Your task to perform on an android device: check storage Image 0: 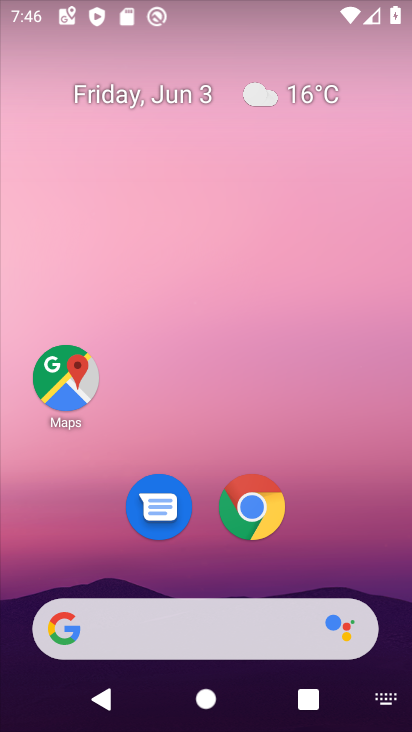
Step 0: drag from (338, 564) to (200, 40)
Your task to perform on an android device: check storage Image 1: 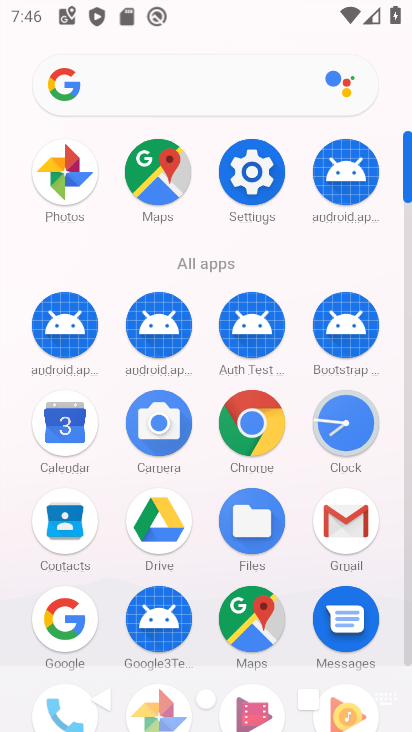
Step 1: click (257, 188)
Your task to perform on an android device: check storage Image 2: 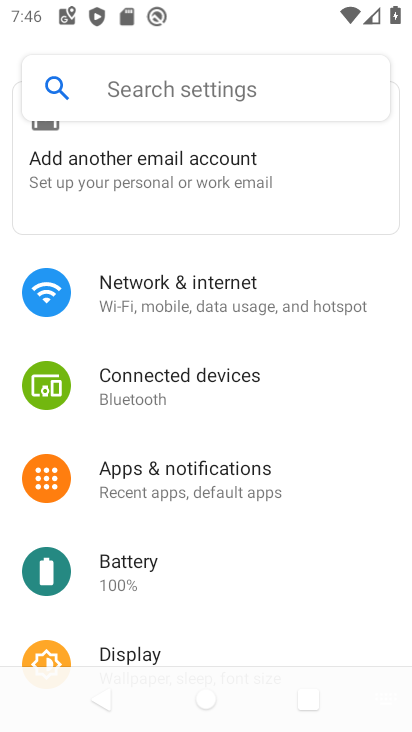
Step 2: drag from (242, 579) to (262, 135)
Your task to perform on an android device: check storage Image 3: 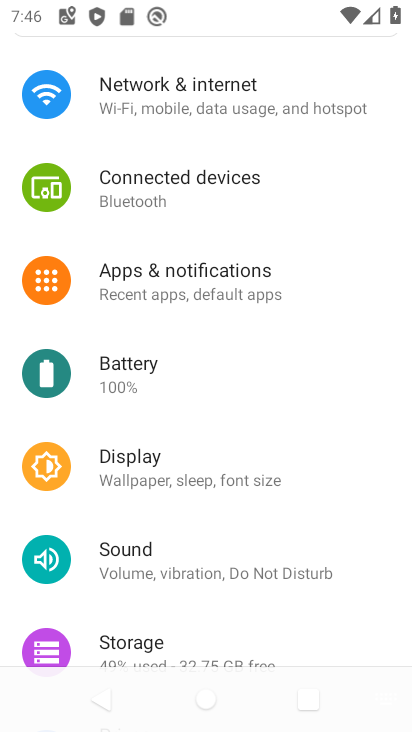
Step 3: drag from (207, 508) to (232, 211)
Your task to perform on an android device: check storage Image 4: 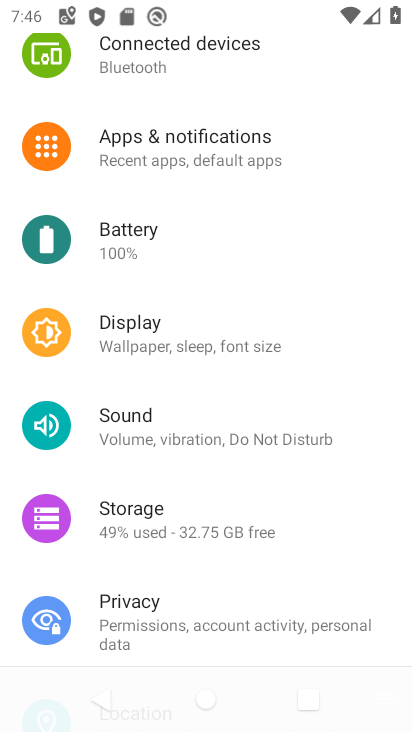
Step 4: click (143, 499)
Your task to perform on an android device: check storage Image 5: 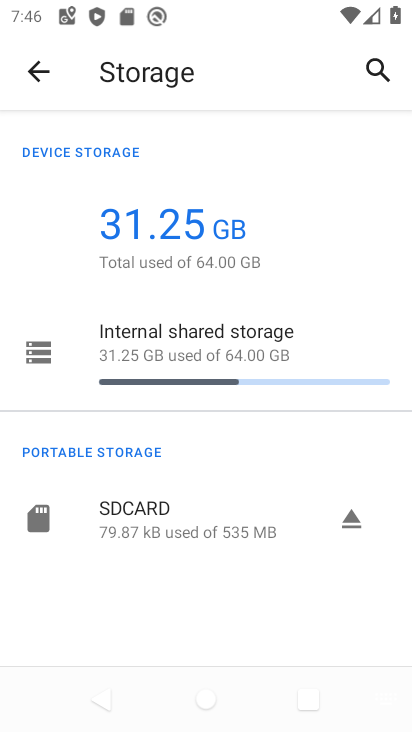
Step 5: task complete